Your task to perform on an android device: Open accessibility settings Image 0: 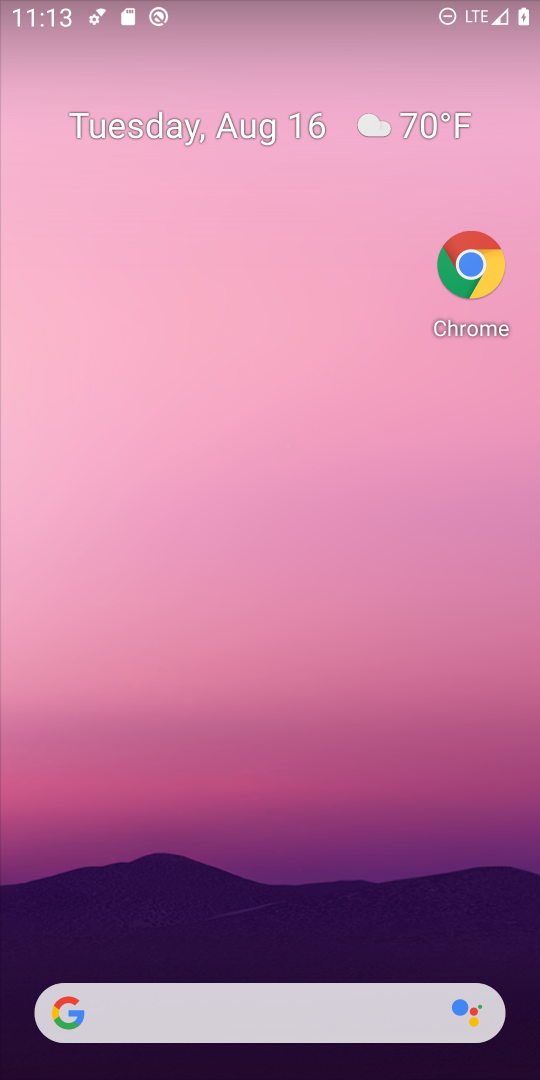
Step 0: drag from (320, 964) to (502, 207)
Your task to perform on an android device: Open accessibility settings Image 1: 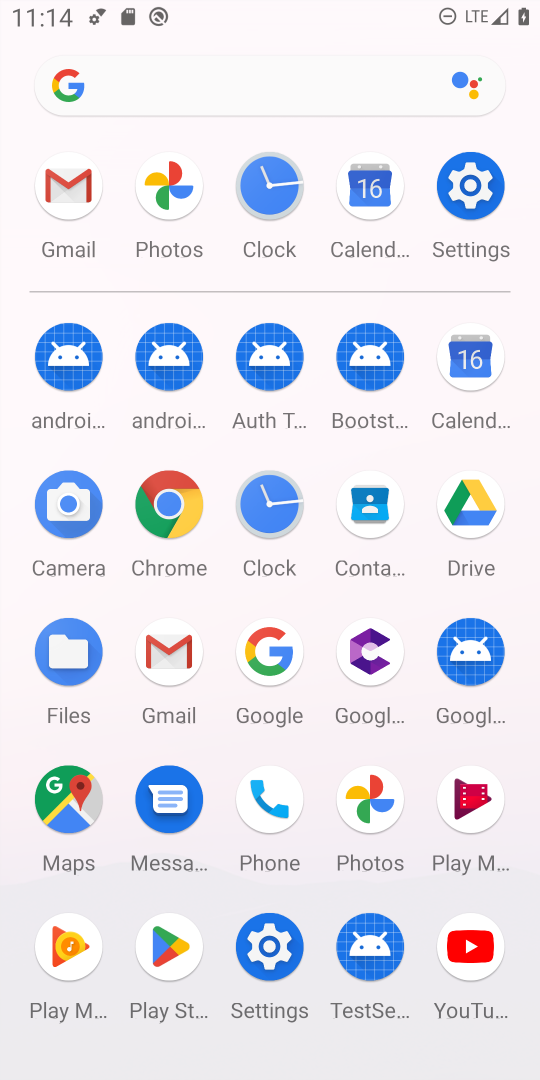
Step 1: click (462, 245)
Your task to perform on an android device: Open accessibility settings Image 2: 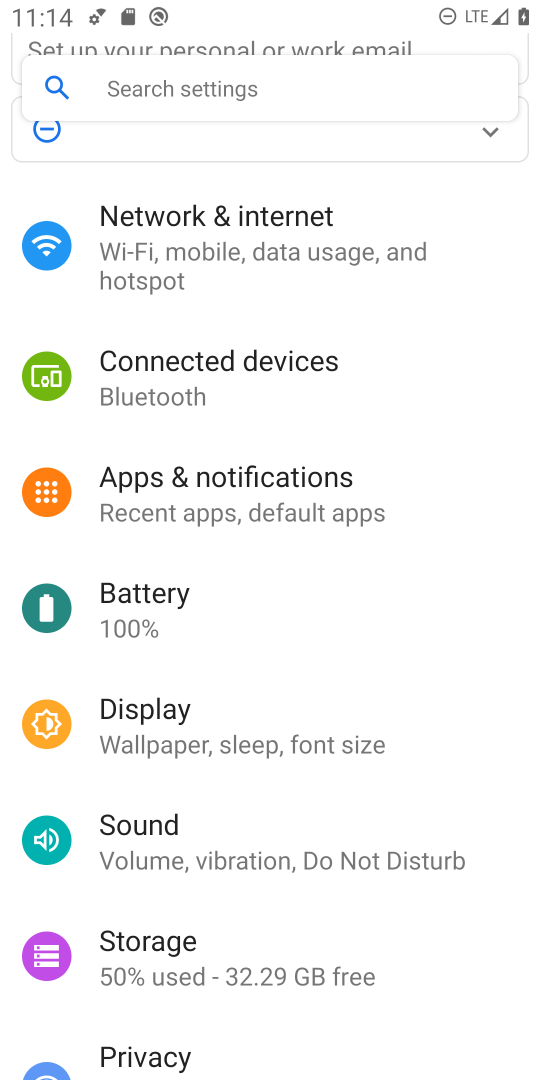
Step 2: drag from (243, 711) to (248, 332)
Your task to perform on an android device: Open accessibility settings Image 3: 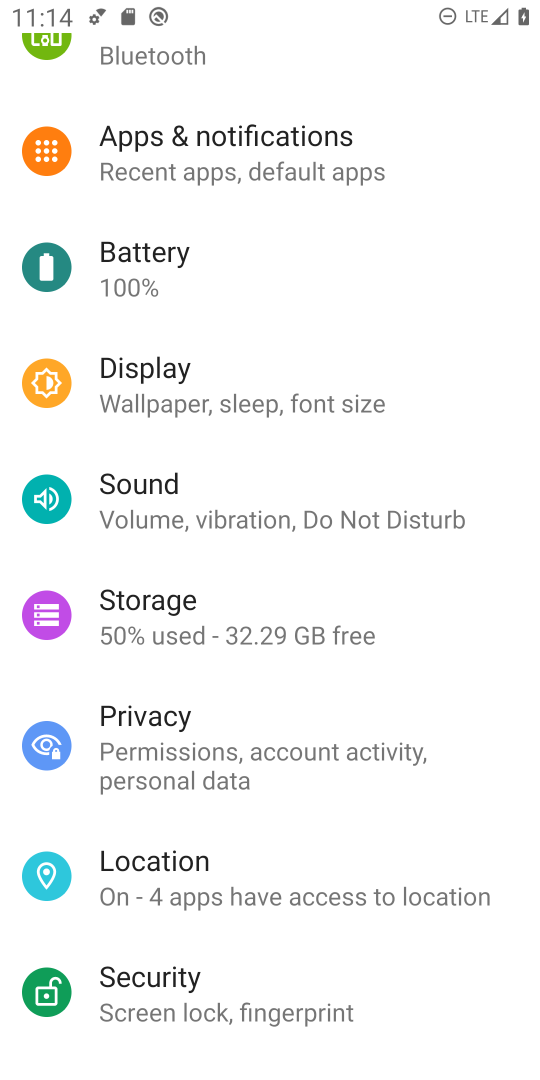
Step 3: drag from (296, 888) to (385, 169)
Your task to perform on an android device: Open accessibility settings Image 4: 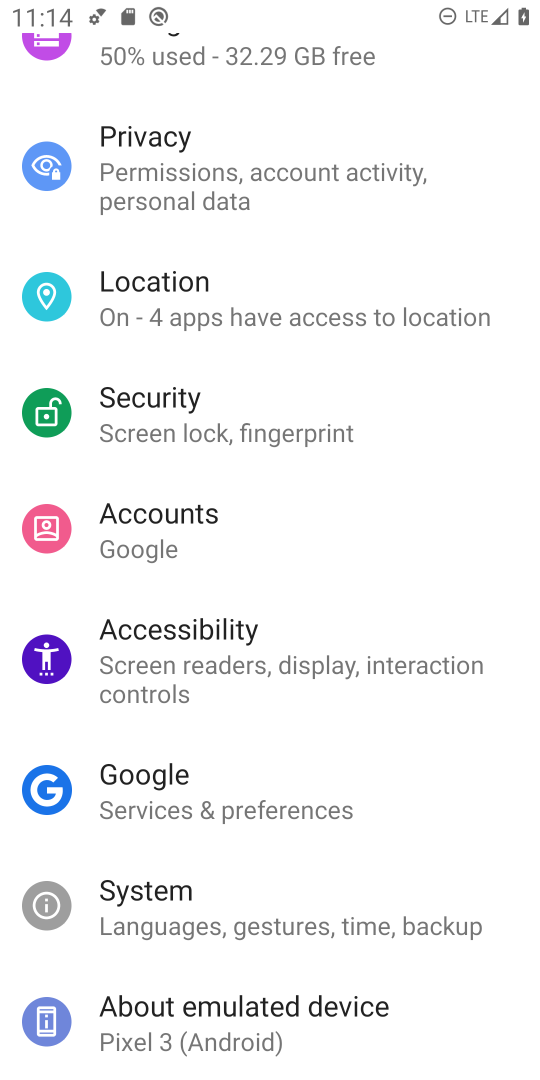
Step 4: drag from (293, 977) to (330, 327)
Your task to perform on an android device: Open accessibility settings Image 5: 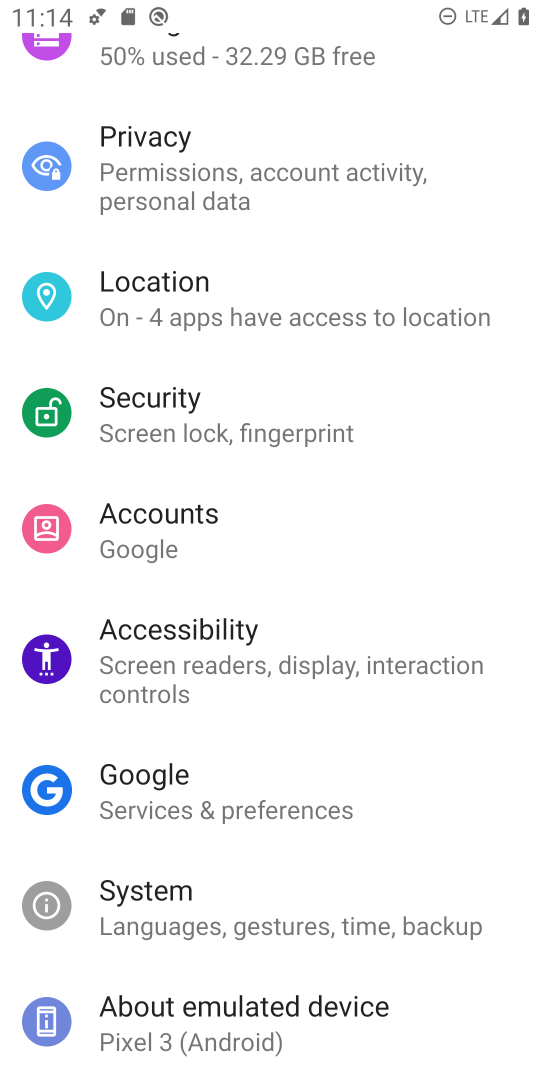
Step 5: click (358, 662)
Your task to perform on an android device: Open accessibility settings Image 6: 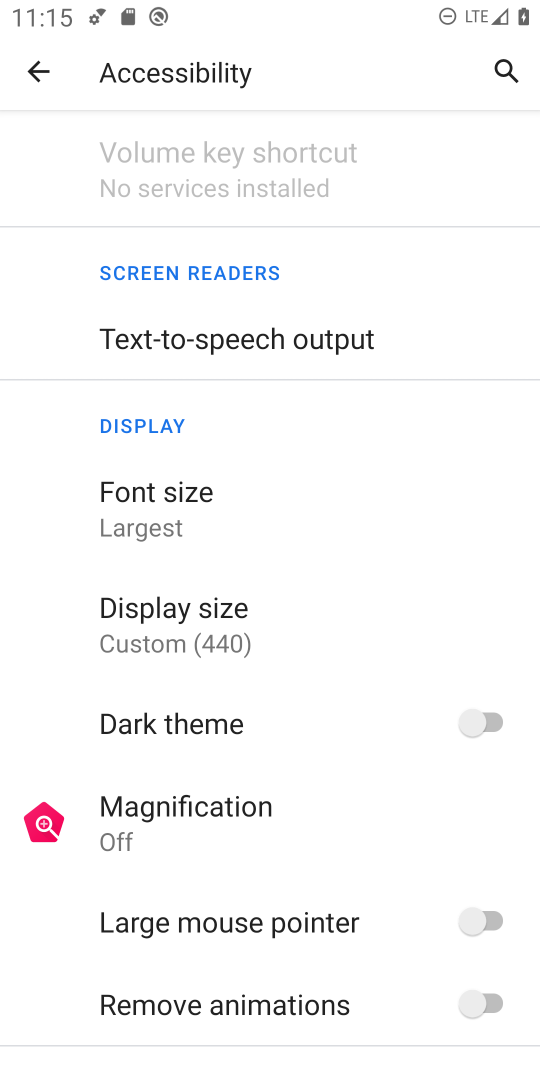
Step 6: task complete